Your task to perform on an android device: turn off data saver in the chrome app Image 0: 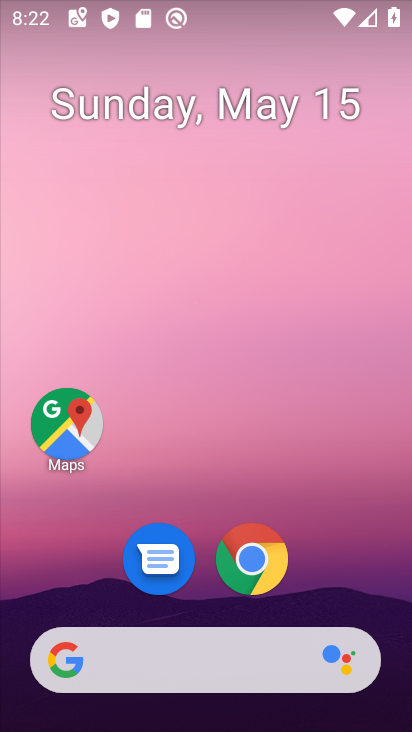
Step 0: click (272, 560)
Your task to perform on an android device: turn off data saver in the chrome app Image 1: 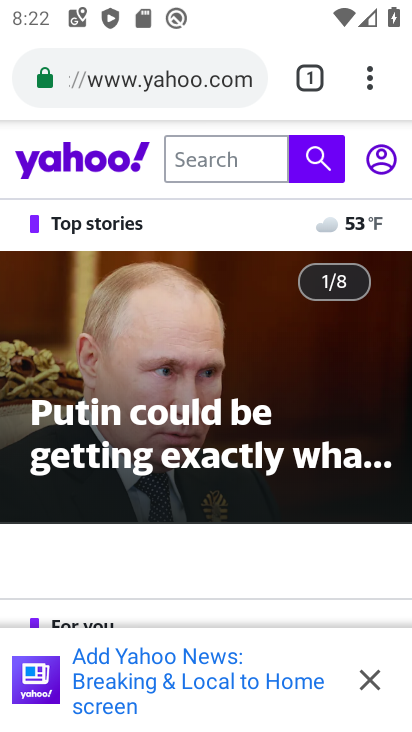
Step 1: click (369, 94)
Your task to perform on an android device: turn off data saver in the chrome app Image 2: 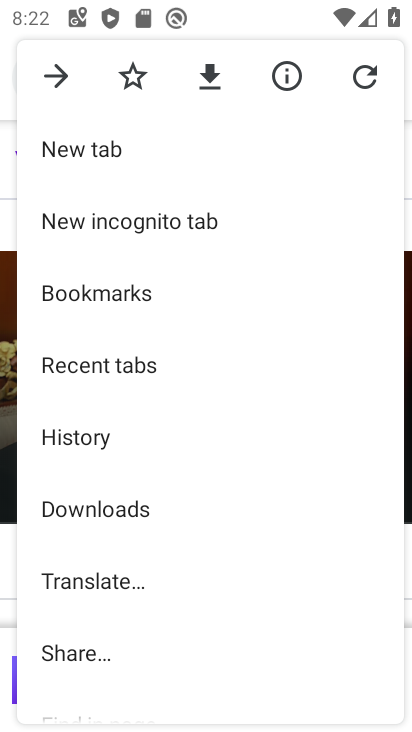
Step 2: drag from (183, 593) to (258, 264)
Your task to perform on an android device: turn off data saver in the chrome app Image 3: 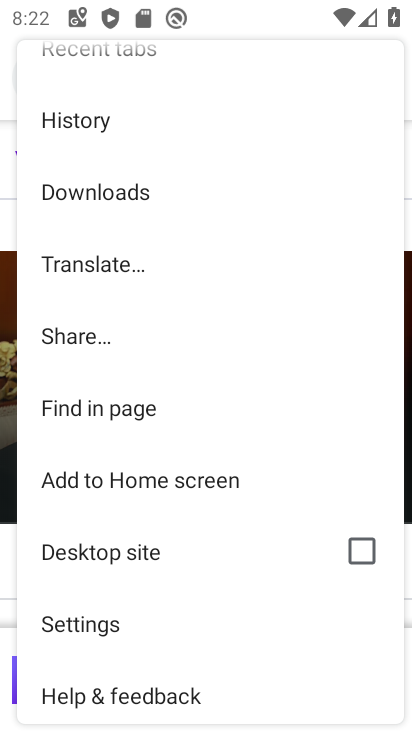
Step 3: click (163, 626)
Your task to perform on an android device: turn off data saver in the chrome app Image 4: 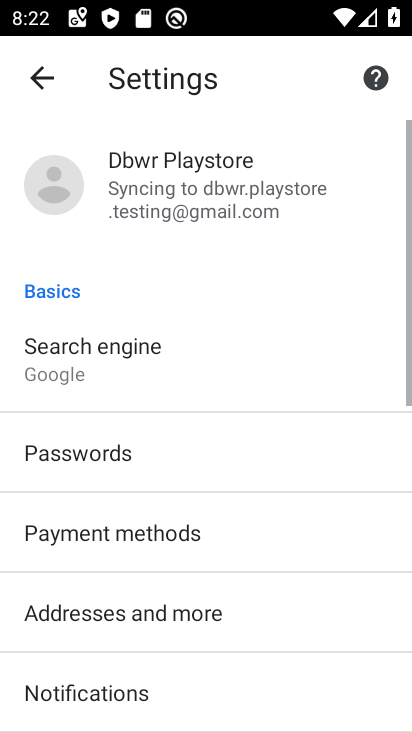
Step 4: drag from (163, 626) to (261, 177)
Your task to perform on an android device: turn off data saver in the chrome app Image 5: 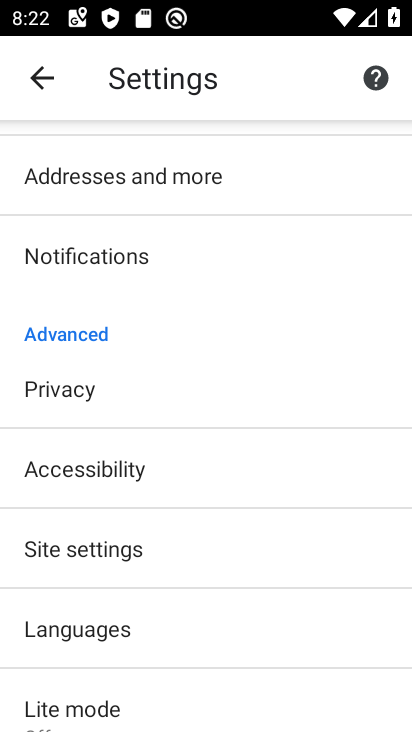
Step 5: click (163, 683)
Your task to perform on an android device: turn off data saver in the chrome app Image 6: 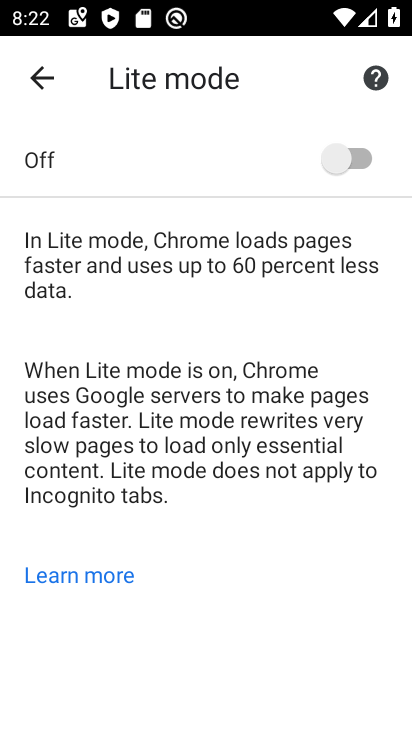
Step 6: click (349, 172)
Your task to perform on an android device: turn off data saver in the chrome app Image 7: 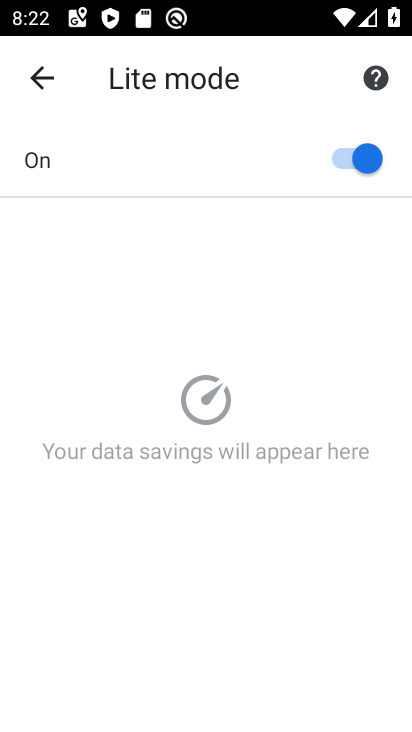
Step 7: task complete